Your task to perform on an android device: star an email in the gmail app Image 0: 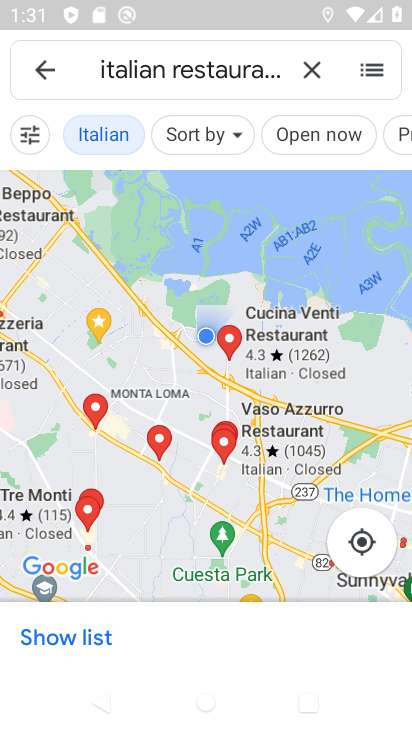
Step 0: press home button
Your task to perform on an android device: star an email in the gmail app Image 1: 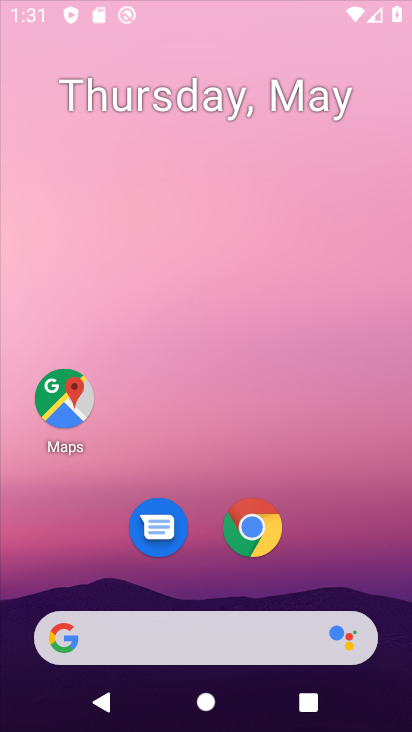
Step 1: drag from (163, 519) to (219, 38)
Your task to perform on an android device: star an email in the gmail app Image 2: 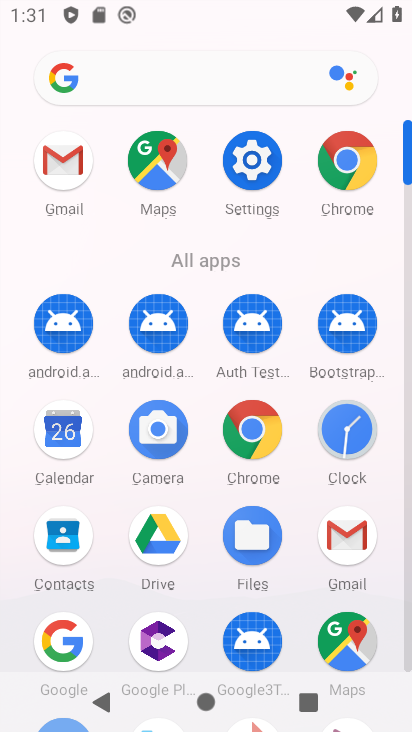
Step 2: click (353, 541)
Your task to perform on an android device: star an email in the gmail app Image 3: 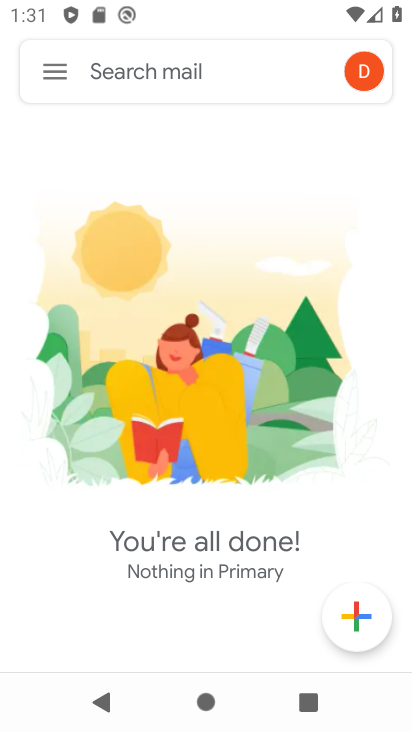
Step 3: click (39, 65)
Your task to perform on an android device: star an email in the gmail app Image 4: 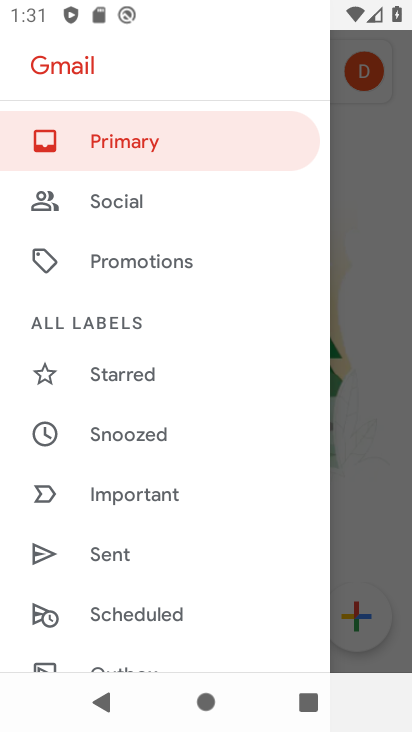
Step 4: click (132, 366)
Your task to perform on an android device: star an email in the gmail app Image 5: 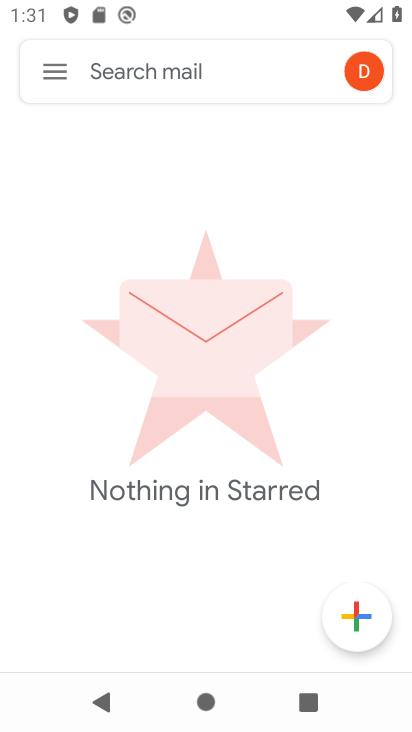
Step 5: task complete